Your task to perform on an android device: remove spam from my inbox in the gmail app Image 0: 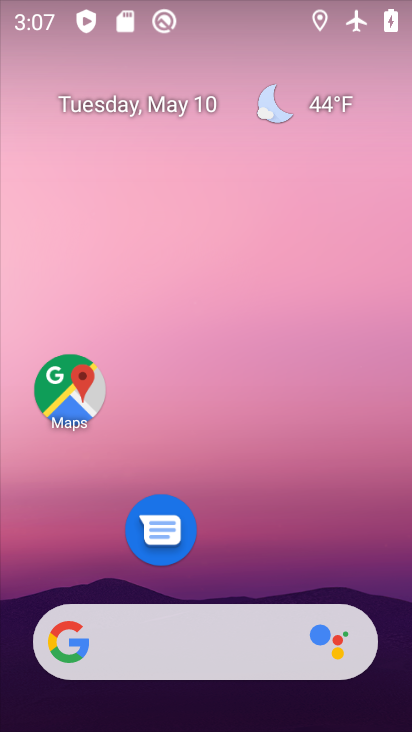
Step 0: drag from (225, 531) to (275, 34)
Your task to perform on an android device: remove spam from my inbox in the gmail app Image 1: 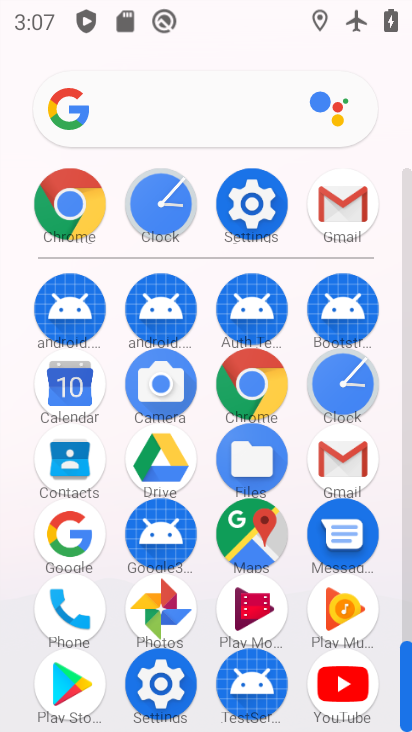
Step 1: click (342, 200)
Your task to perform on an android device: remove spam from my inbox in the gmail app Image 2: 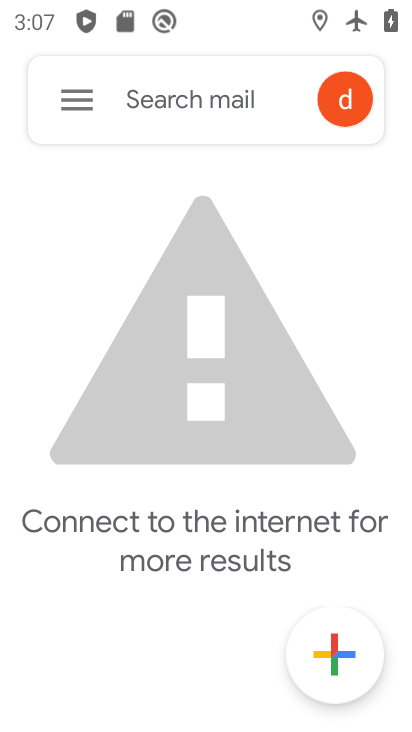
Step 2: click (65, 103)
Your task to perform on an android device: remove spam from my inbox in the gmail app Image 3: 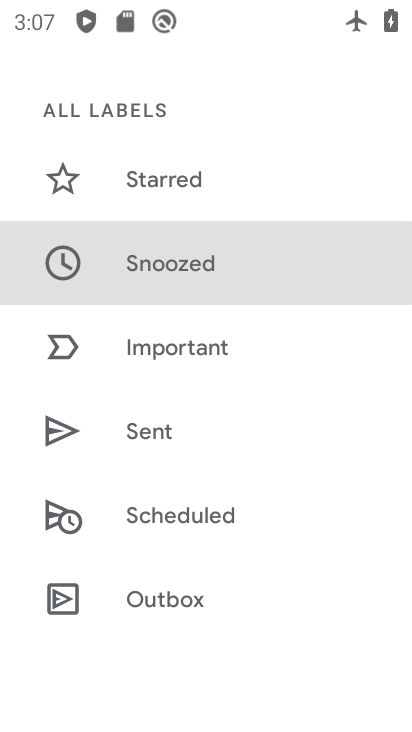
Step 3: drag from (199, 488) to (237, 87)
Your task to perform on an android device: remove spam from my inbox in the gmail app Image 4: 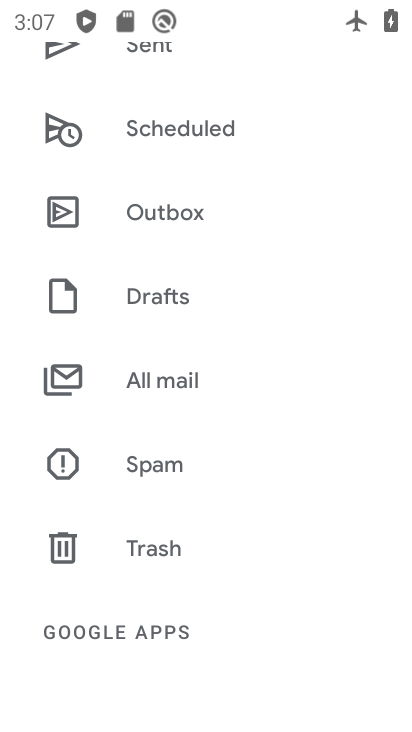
Step 4: click (161, 466)
Your task to perform on an android device: remove spam from my inbox in the gmail app Image 5: 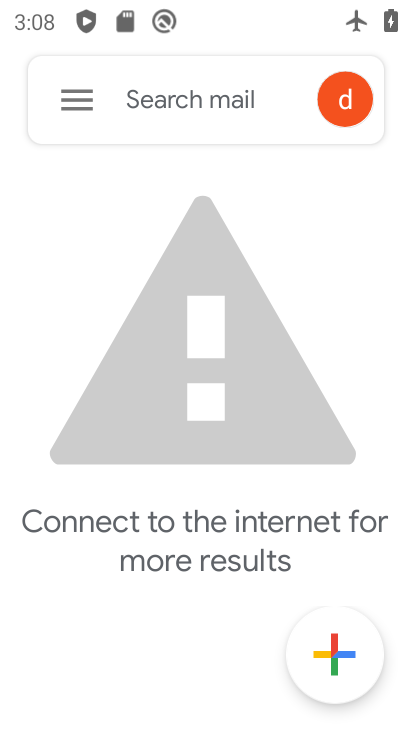
Step 5: task complete